Your task to perform on an android device: stop showing notifications on the lock screen Image 0: 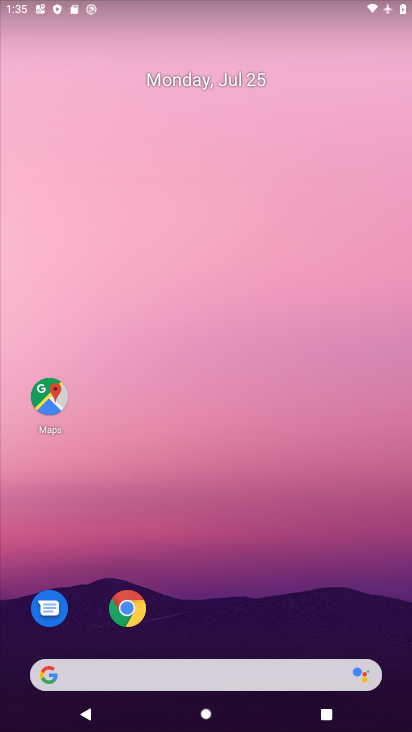
Step 0: drag from (198, 675) to (215, 193)
Your task to perform on an android device: stop showing notifications on the lock screen Image 1: 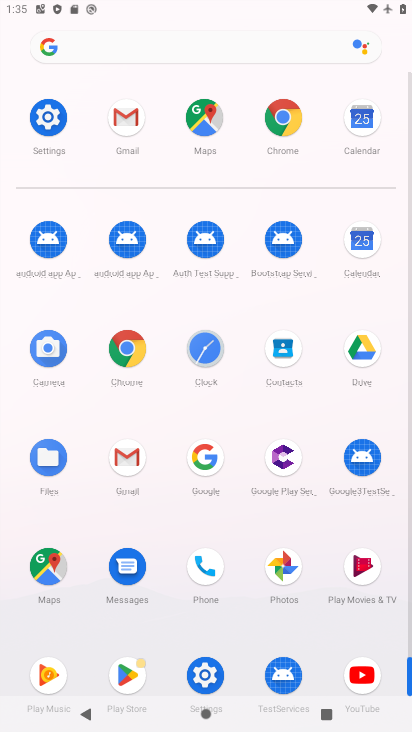
Step 1: click (56, 135)
Your task to perform on an android device: stop showing notifications on the lock screen Image 2: 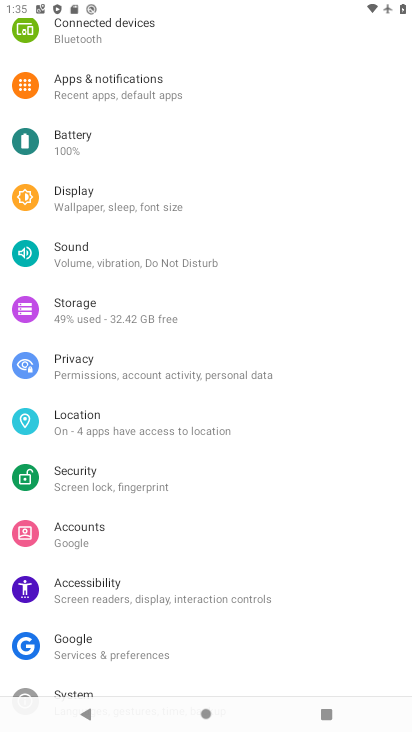
Step 2: drag from (122, 253) to (57, 560)
Your task to perform on an android device: stop showing notifications on the lock screen Image 3: 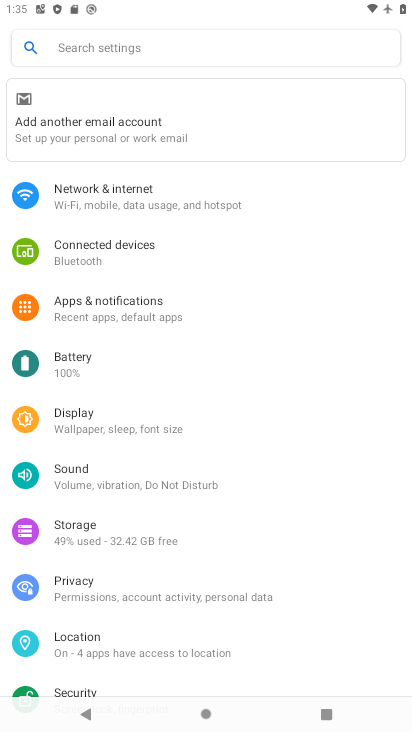
Step 3: click (126, 310)
Your task to perform on an android device: stop showing notifications on the lock screen Image 4: 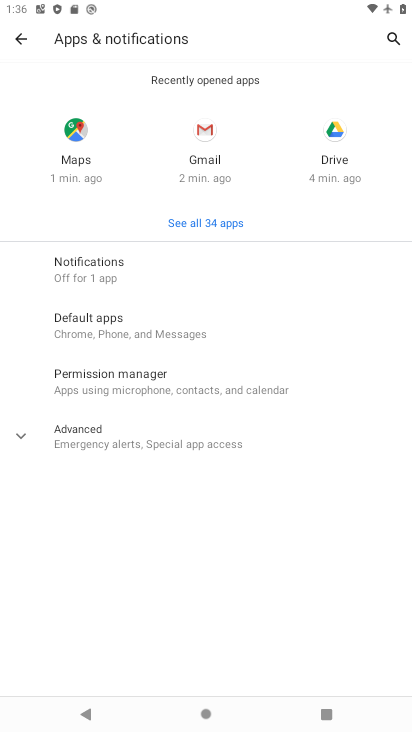
Step 4: click (115, 273)
Your task to perform on an android device: stop showing notifications on the lock screen Image 5: 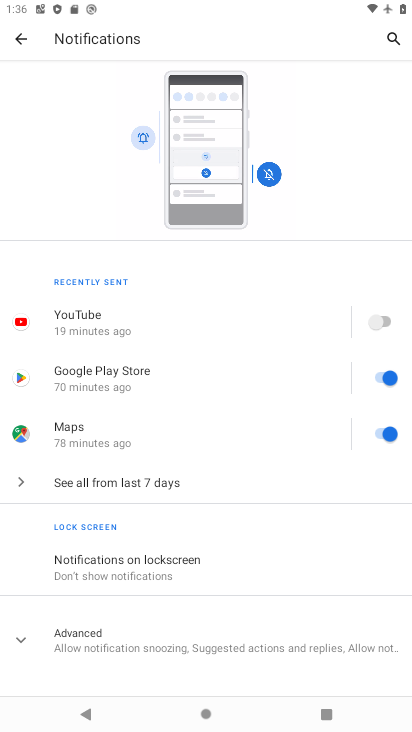
Step 5: click (211, 563)
Your task to perform on an android device: stop showing notifications on the lock screen Image 6: 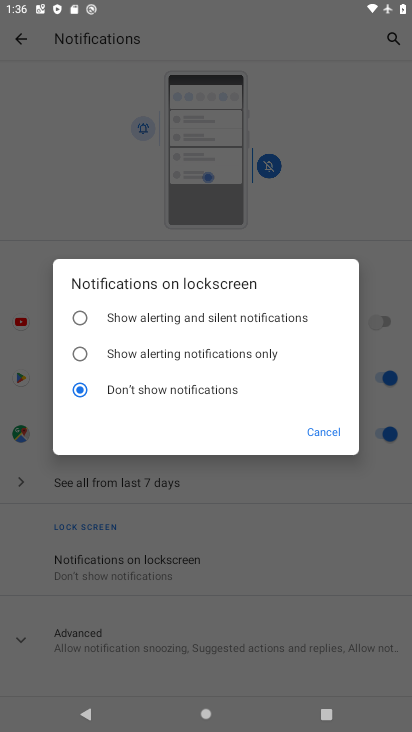
Step 6: task complete